Your task to perform on an android device: Go to CNN.com Image 0: 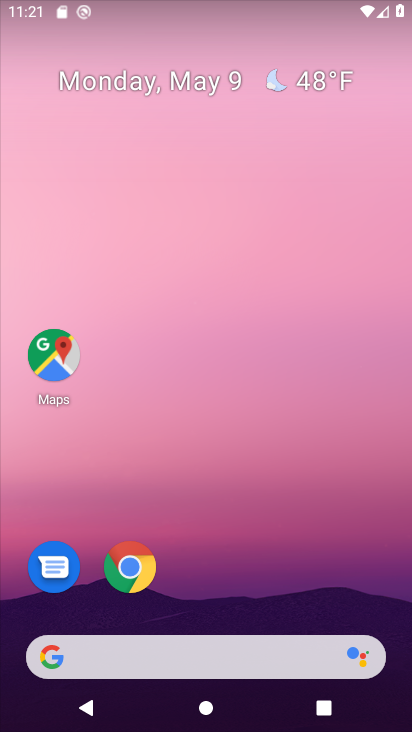
Step 0: click (135, 566)
Your task to perform on an android device: Go to CNN.com Image 1: 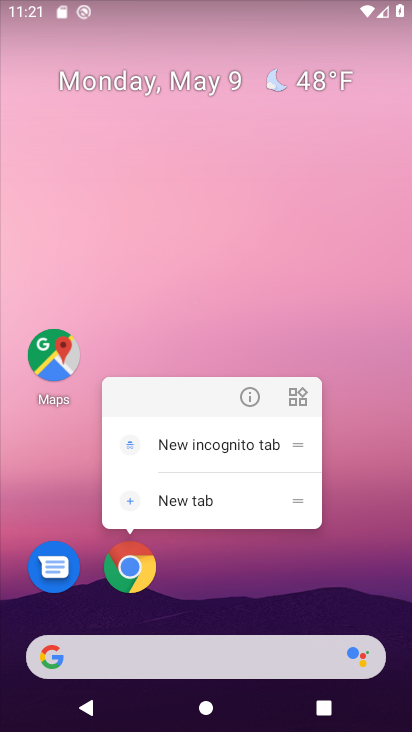
Step 1: click (141, 563)
Your task to perform on an android device: Go to CNN.com Image 2: 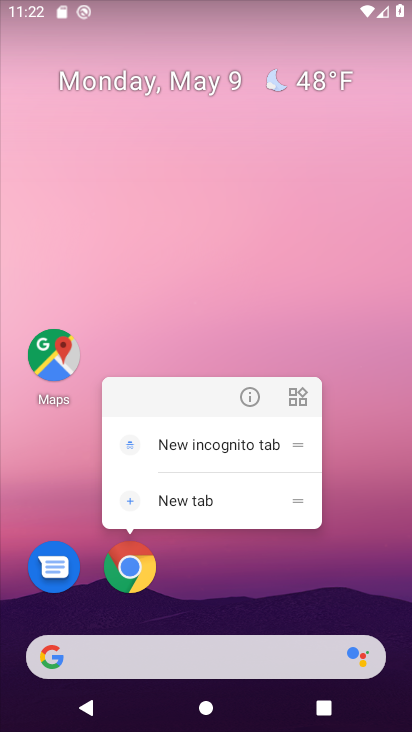
Step 2: click (139, 562)
Your task to perform on an android device: Go to CNN.com Image 3: 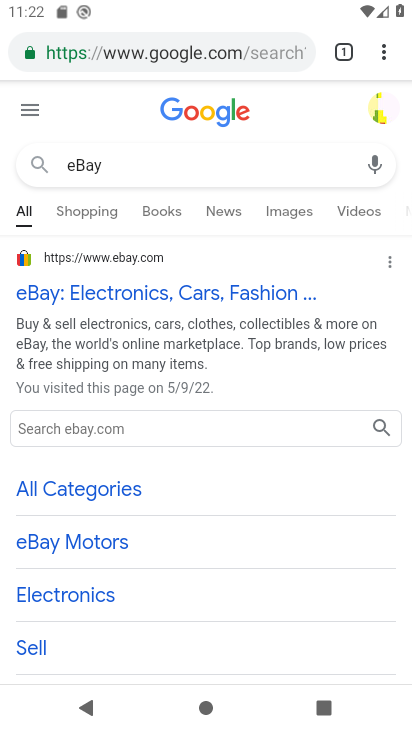
Step 3: click (172, 48)
Your task to perform on an android device: Go to CNN.com Image 4: 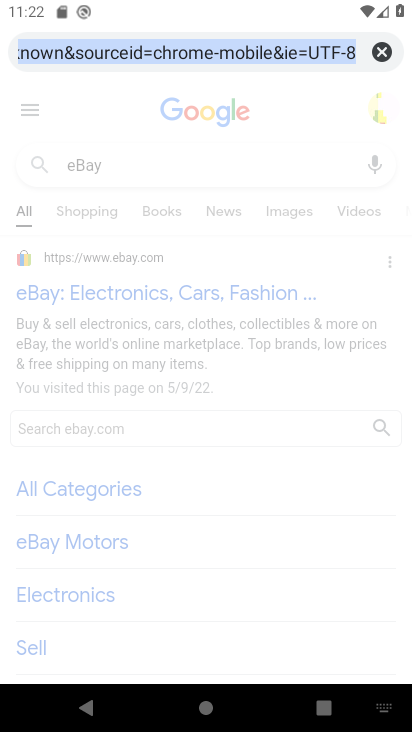
Step 4: type "CNN.com"
Your task to perform on an android device: Go to CNN.com Image 5: 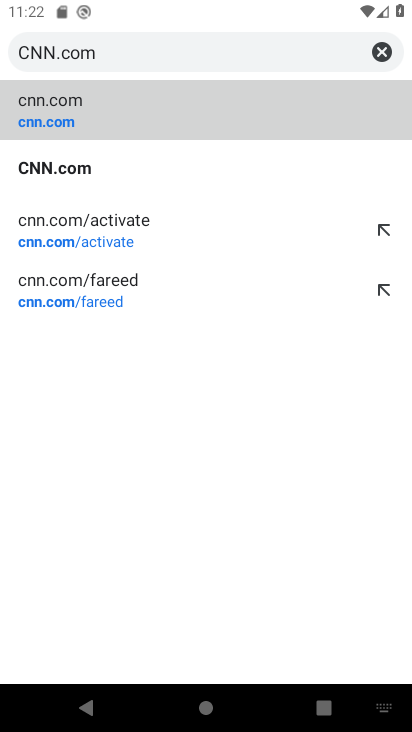
Step 5: click (109, 117)
Your task to perform on an android device: Go to CNN.com Image 6: 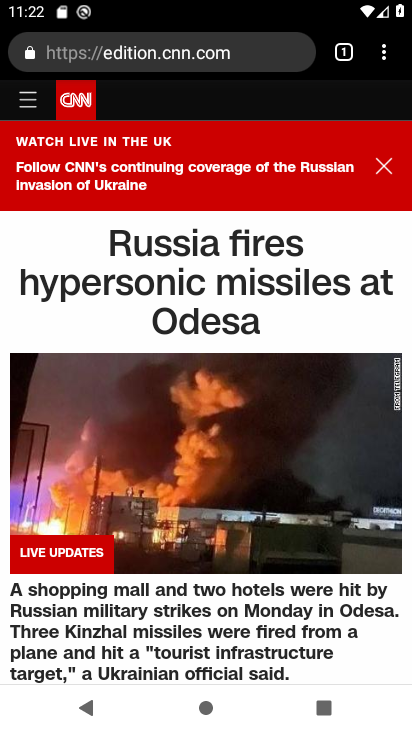
Step 6: task complete